Your task to perform on an android device: change notification settings in the gmail app Image 0: 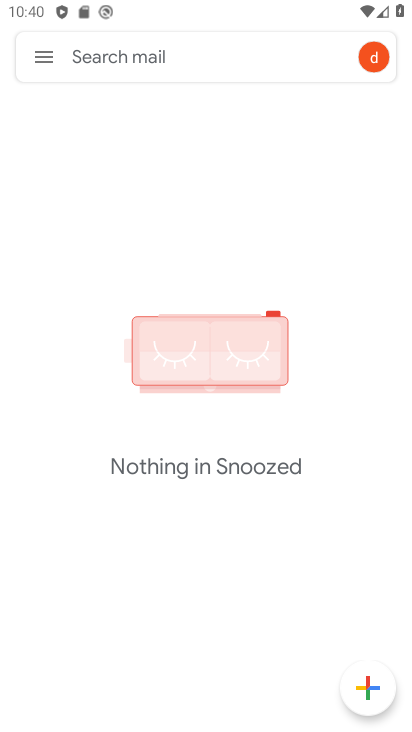
Step 0: press home button
Your task to perform on an android device: change notification settings in the gmail app Image 1: 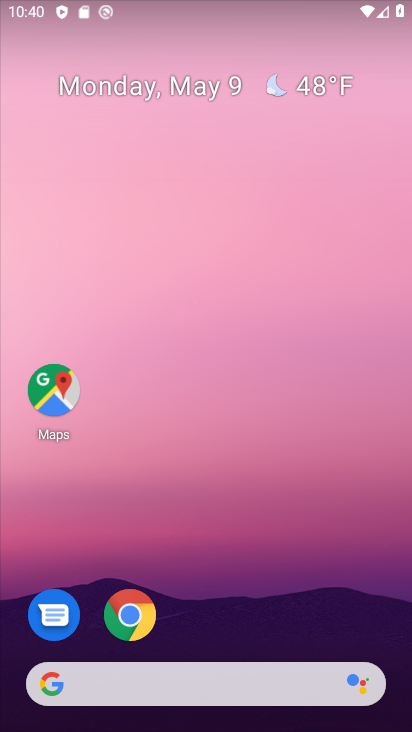
Step 1: drag from (208, 336) to (239, 53)
Your task to perform on an android device: change notification settings in the gmail app Image 2: 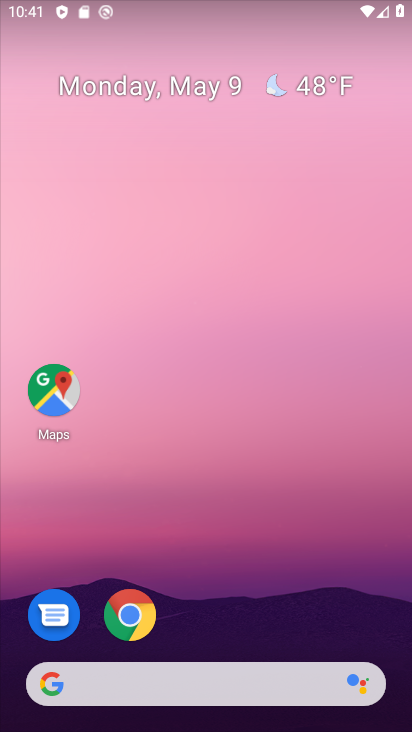
Step 2: drag from (200, 608) to (242, 16)
Your task to perform on an android device: change notification settings in the gmail app Image 3: 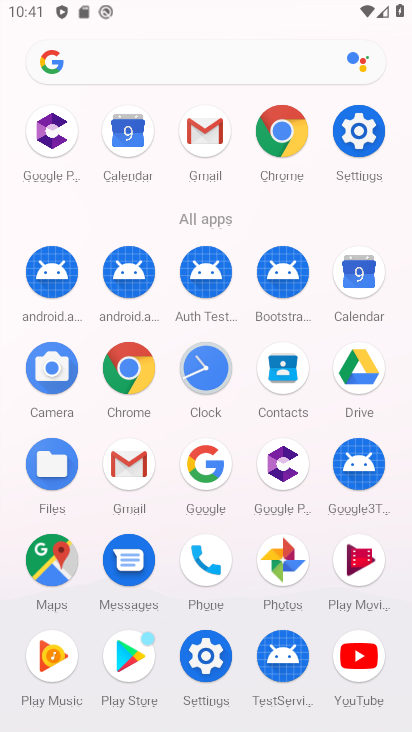
Step 3: click (202, 140)
Your task to perform on an android device: change notification settings in the gmail app Image 4: 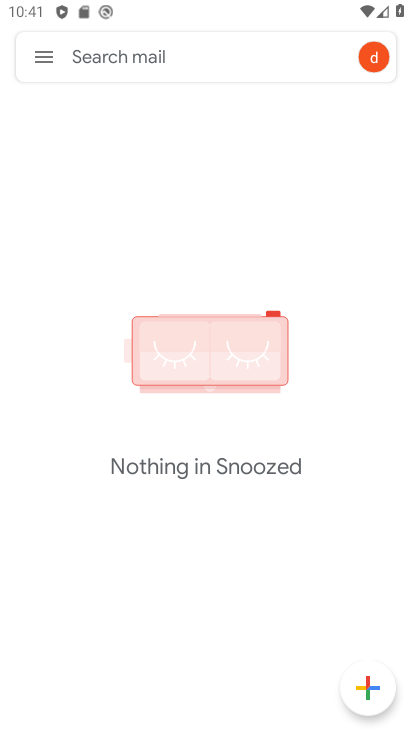
Step 4: click (45, 57)
Your task to perform on an android device: change notification settings in the gmail app Image 5: 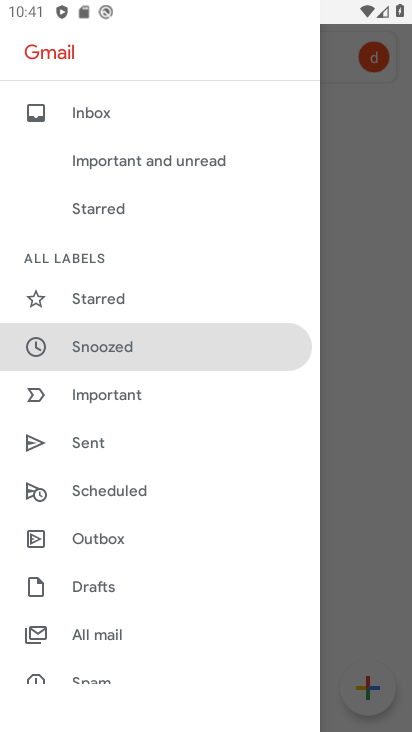
Step 5: drag from (116, 616) to (145, 257)
Your task to perform on an android device: change notification settings in the gmail app Image 6: 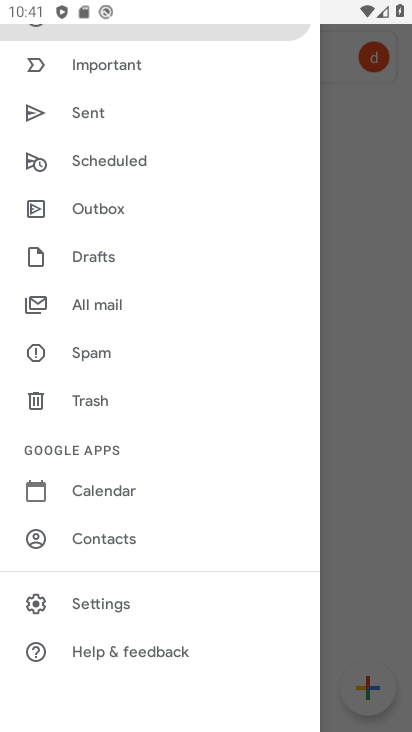
Step 6: click (105, 597)
Your task to perform on an android device: change notification settings in the gmail app Image 7: 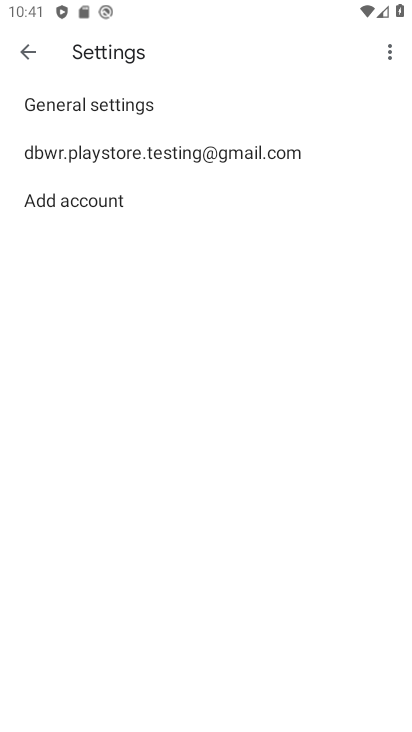
Step 7: click (114, 121)
Your task to perform on an android device: change notification settings in the gmail app Image 8: 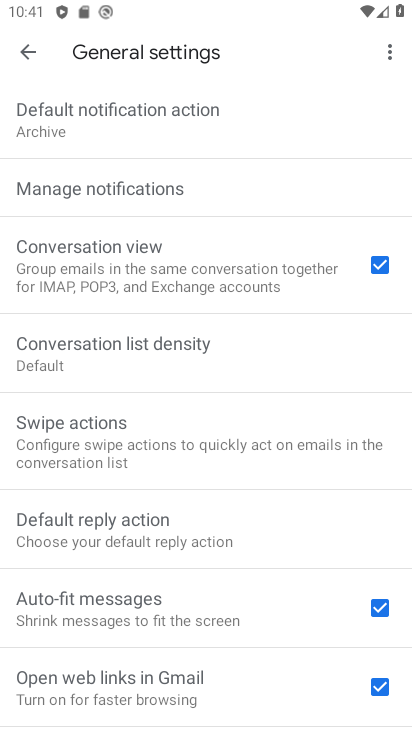
Step 8: click (108, 177)
Your task to perform on an android device: change notification settings in the gmail app Image 9: 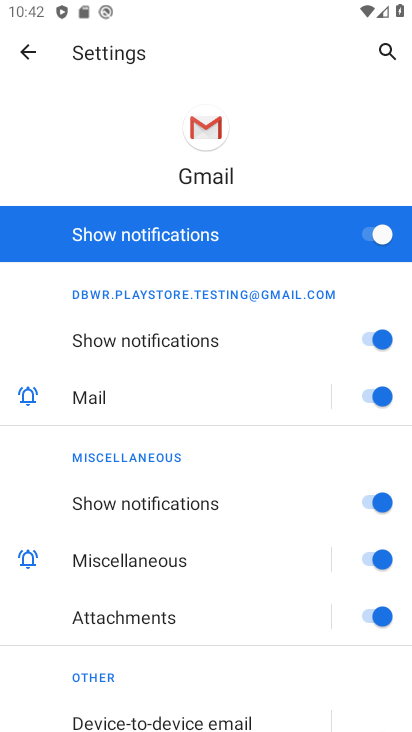
Step 9: click (373, 237)
Your task to perform on an android device: change notification settings in the gmail app Image 10: 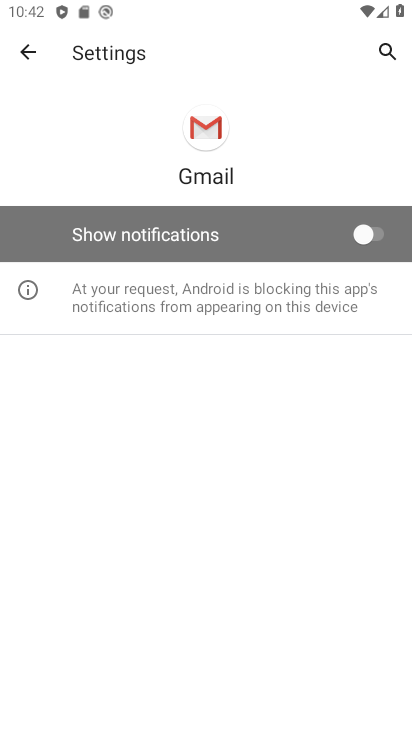
Step 10: task complete